Your task to perform on an android device: turn on javascript in the chrome app Image 0: 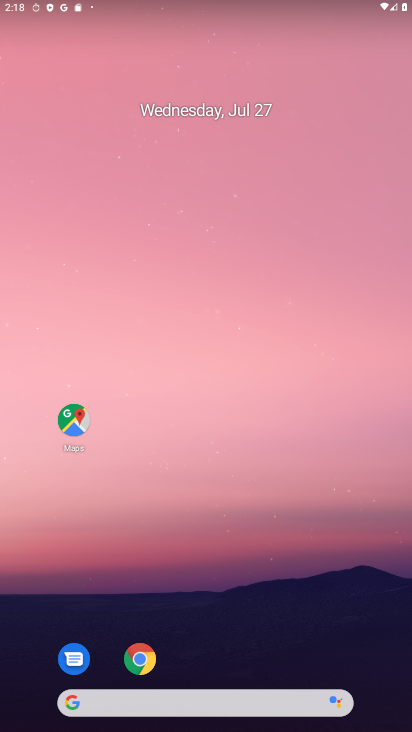
Step 0: click (133, 655)
Your task to perform on an android device: turn on javascript in the chrome app Image 1: 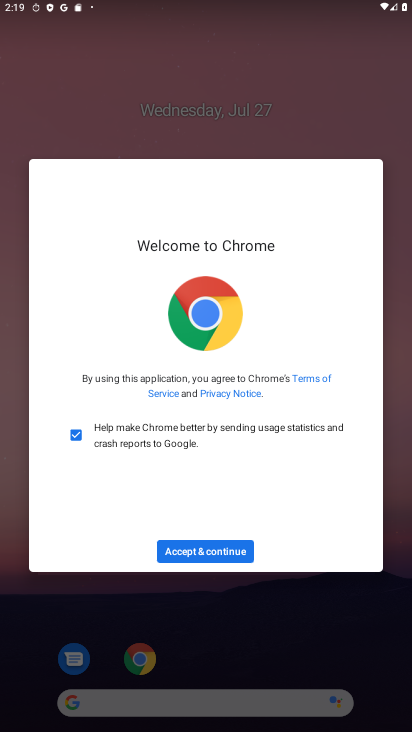
Step 1: click (233, 545)
Your task to perform on an android device: turn on javascript in the chrome app Image 2: 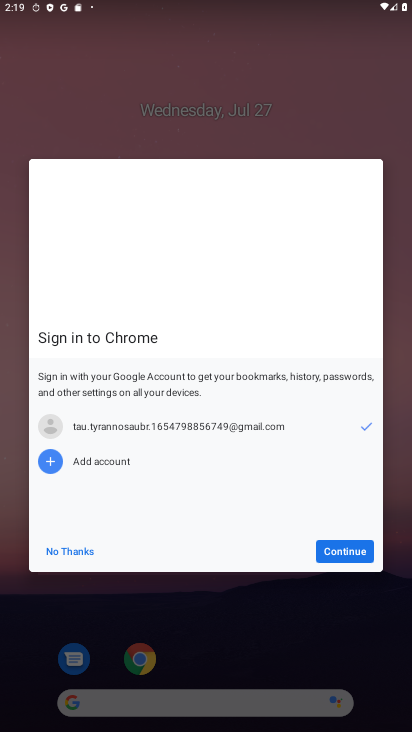
Step 2: click (331, 549)
Your task to perform on an android device: turn on javascript in the chrome app Image 3: 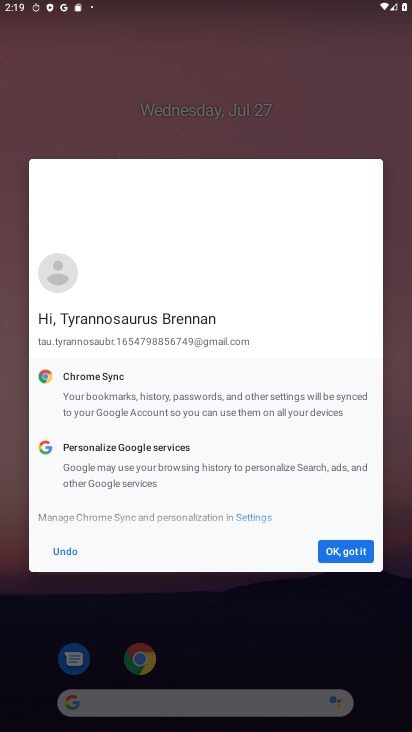
Step 3: click (331, 549)
Your task to perform on an android device: turn on javascript in the chrome app Image 4: 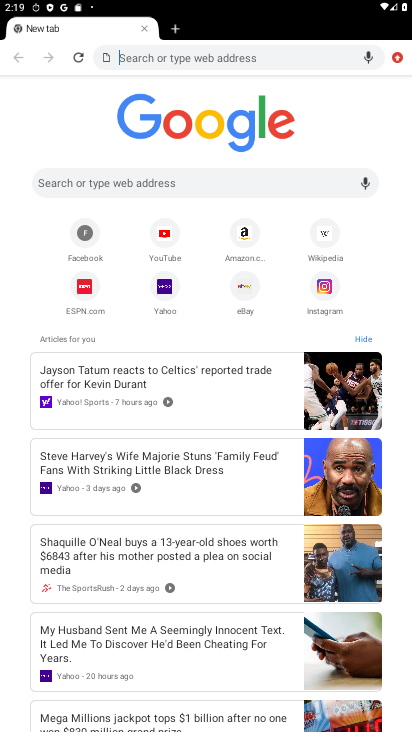
Step 4: click (399, 62)
Your task to perform on an android device: turn on javascript in the chrome app Image 5: 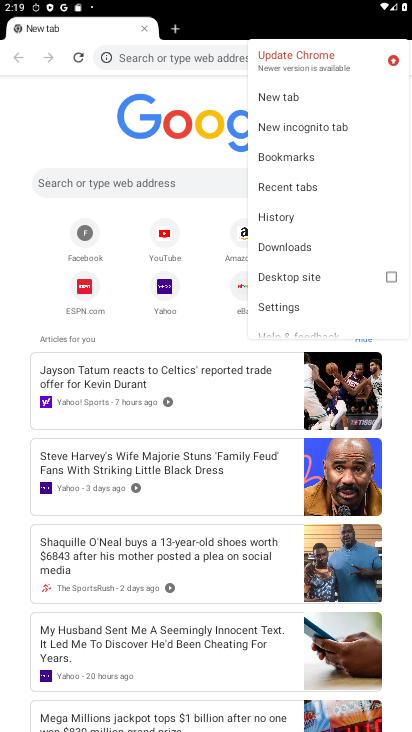
Step 5: click (320, 295)
Your task to perform on an android device: turn on javascript in the chrome app Image 6: 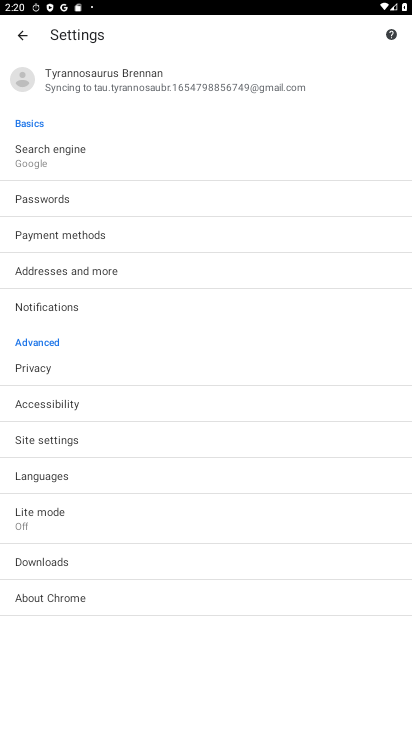
Step 6: click (93, 435)
Your task to perform on an android device: turn on javascript in the chrome app Image 7: 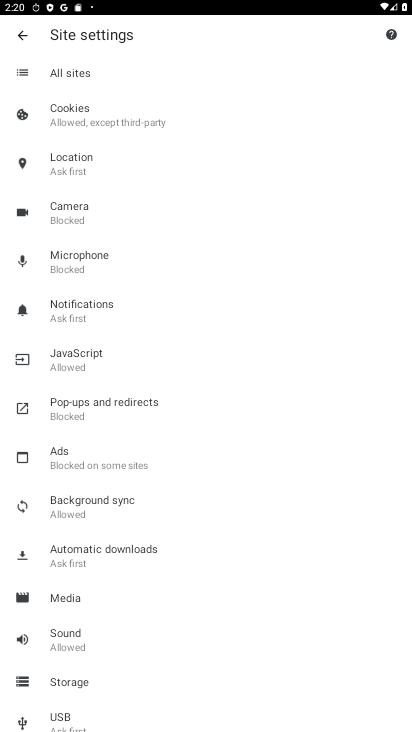
Step 7: click (98, 353)
Your task to perform on an android device: turn on javascript in the chrome app Image 8: 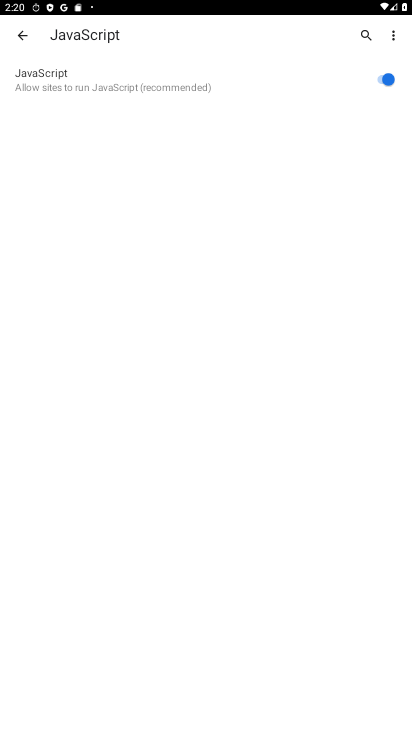
Step 8: task complete